Your task to perform on an android device: set an alarm Image 0: 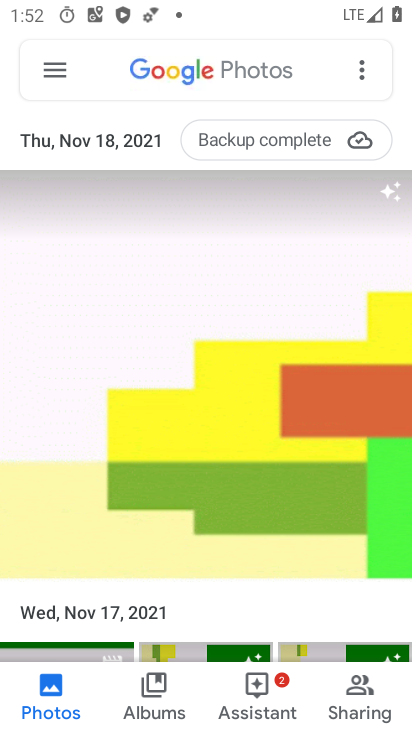
Step 0: press home button
Your task to perform on an android device: set an alarm Image 1: 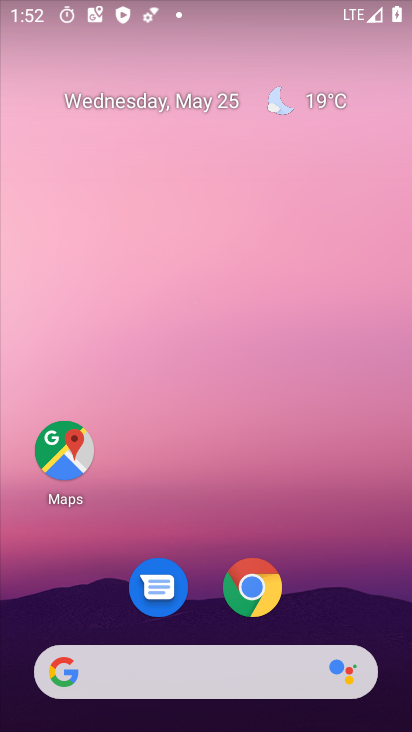
Step 1: drag from (203, 726) to (206, 71)
Your task to perform on an android device: set an alarm Image 2: 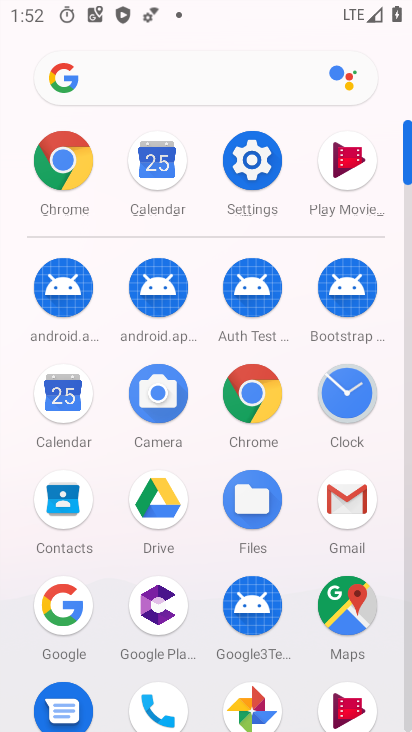
Step 2: click (346, 396)
Your task to perform on an android device: set an alarm Image 3: 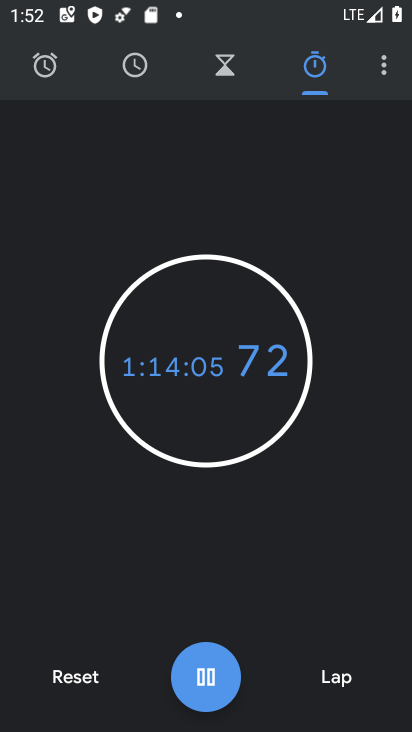
Step 3: click (51, 64)
Your task to perform on an android device: set an alarm Image 4: 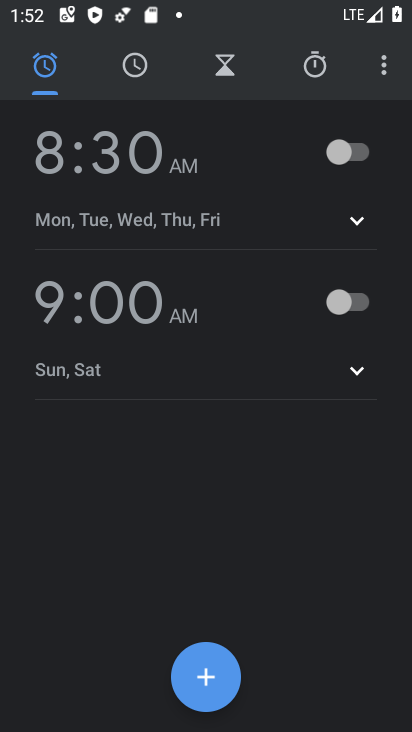
Step 4: click (206, 679)
Your task to perform on an android device: set an alarm Image 5: 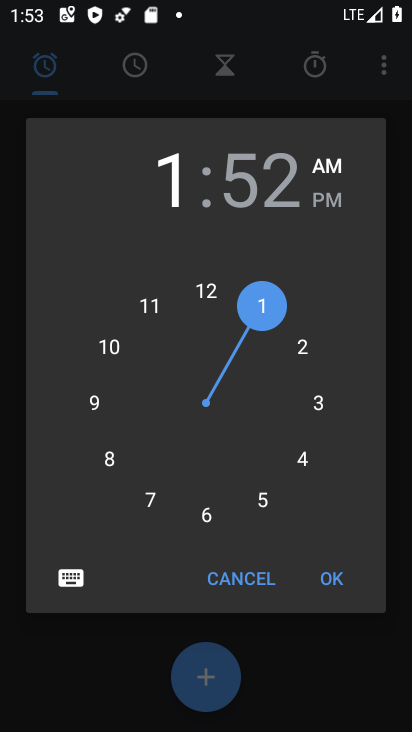
Step 5: click (205, 514)
Your task to perform on an android device: set an alarm Image 6: 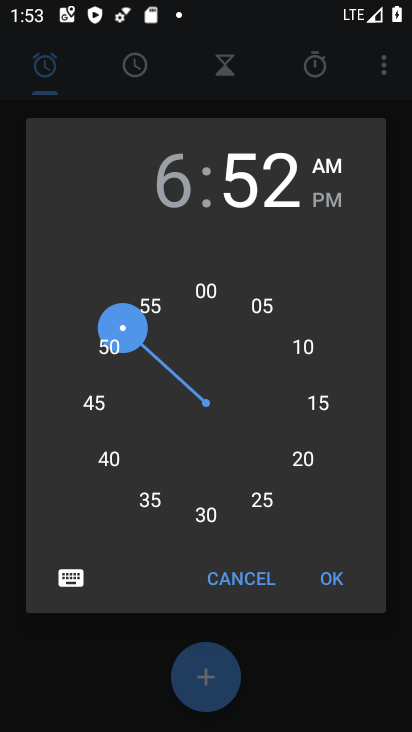
Step 6: click (332, 579)
Your task to perform on an android device: set an alarm Image 7: 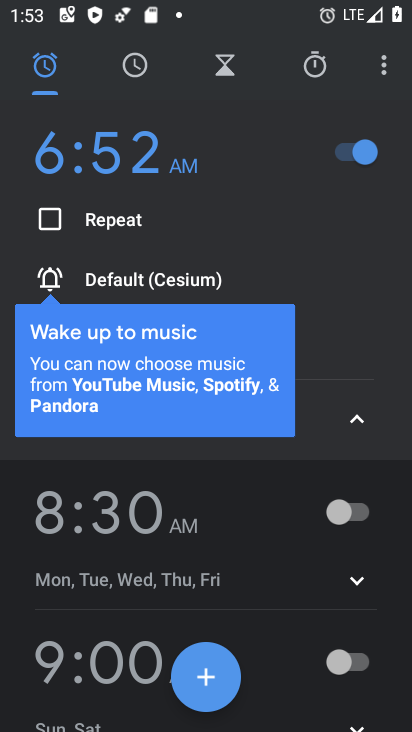
Step 7: task complete